Your task to perform on an android device: Open maps Image 0: 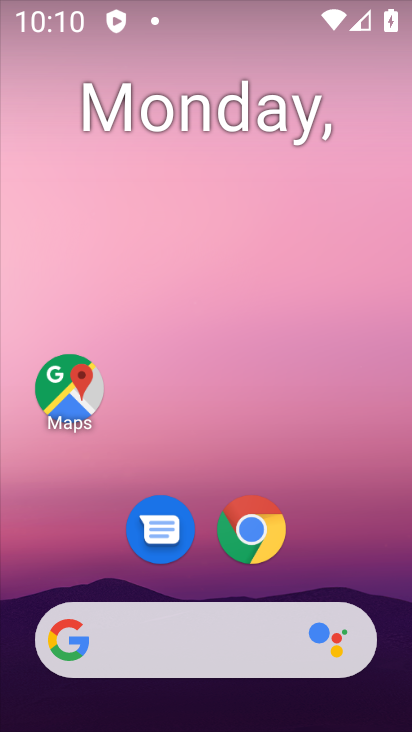
Step 0: click (63, 399)
Your task to perform on an android device: Open maps Image 1: 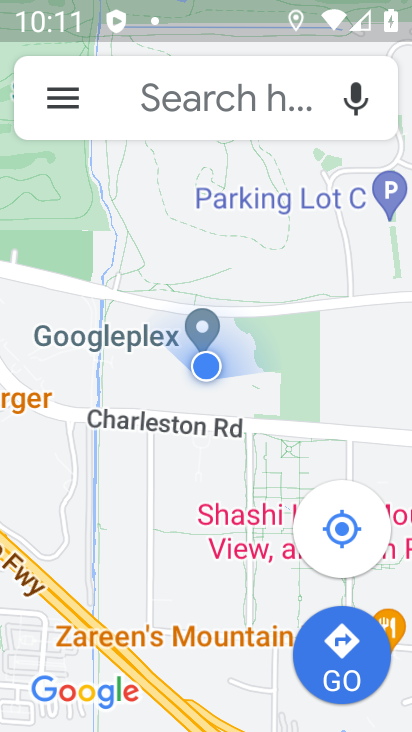
Step 1: task complete